Your task to perform on an android device: Check the news Image 0: 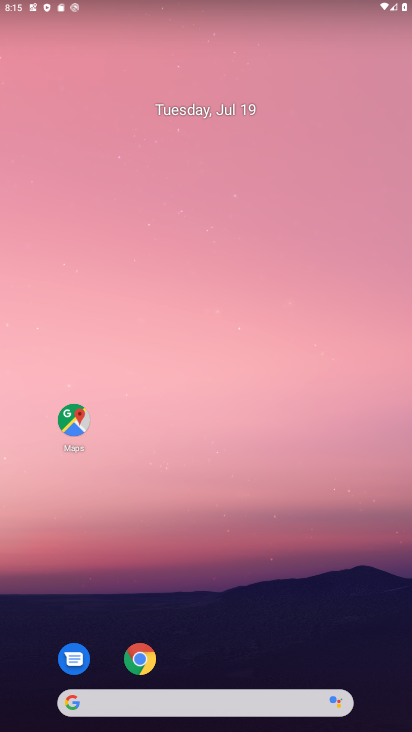
Step 0: drag from (229, 695) to (204, 267)
Your task to perform on an android device: Check the news Image 1: 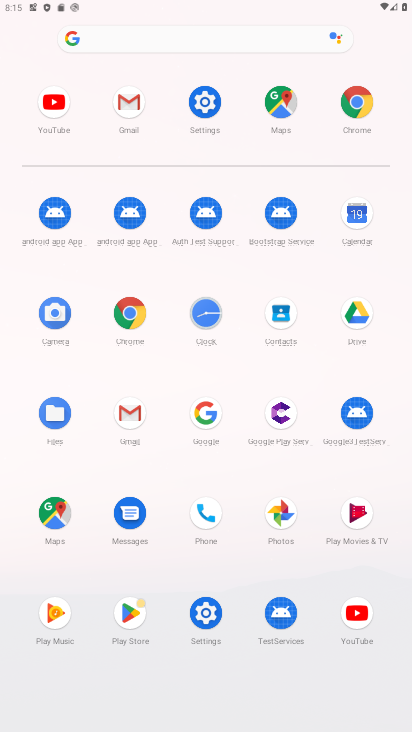
Step 1: click (203, 415)
Your task to perform on an android device: Check the news Image 2: 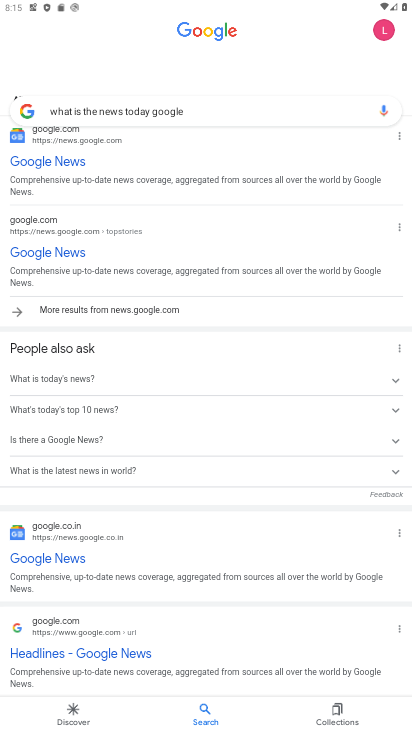
Step 2: click (56, 648)
Your task to perform on an android device: Check the news Image 3: 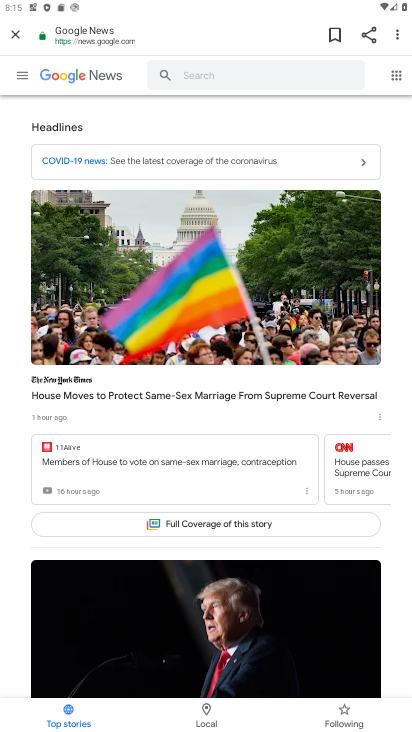
Step 3: task complete